Your task to perform on an android device: Open Google Maps Image 0: 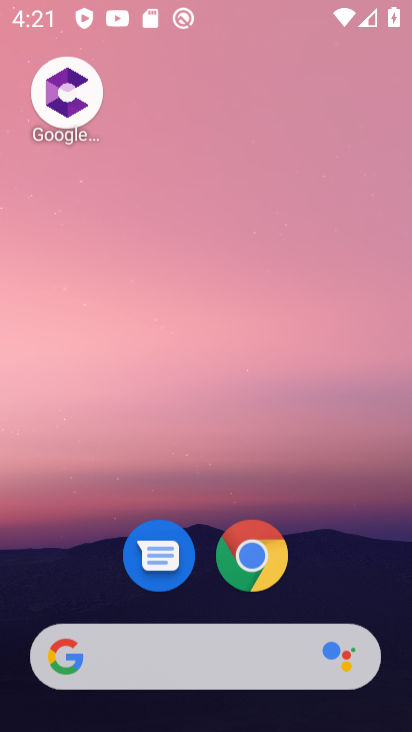
Step 0: drag from (357, 541) to (290, 97)
Your task to perform on an android device: Open Google Maps Image 1: 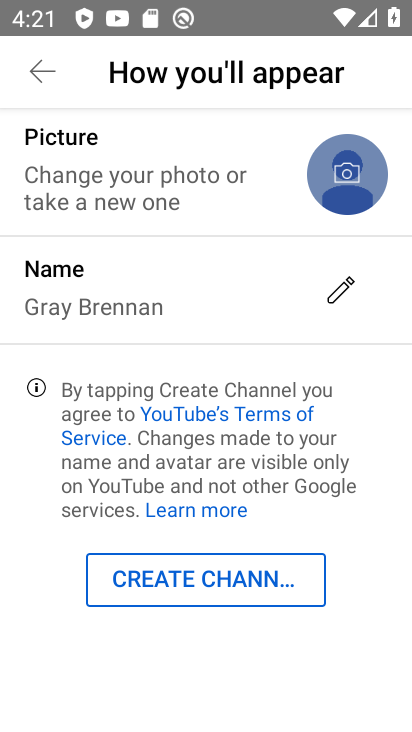
Step 1: press home button
Your task to perform on an android device: Open Google Maps Image 2: 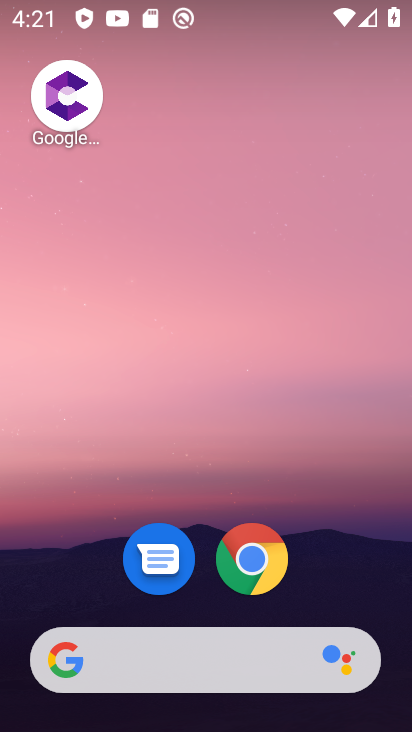
Step 2: drag from (387, 567) to (283, 31)
Your task to perform on an android device: Open Google Maps Image 3: 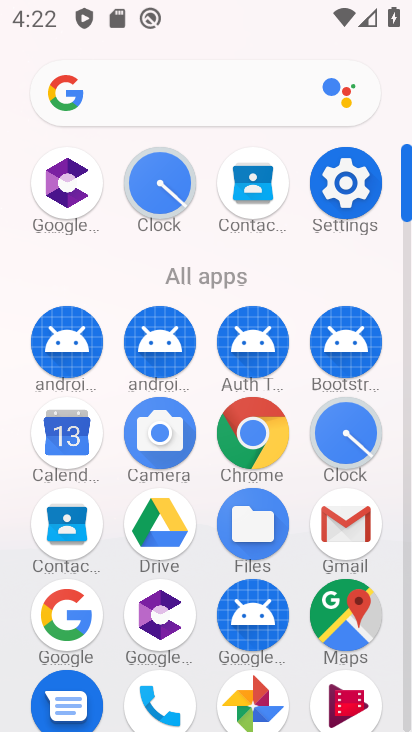
Step 3: click (328, 602)
Your task to perform on an android device: Open Google Maps Image 4: 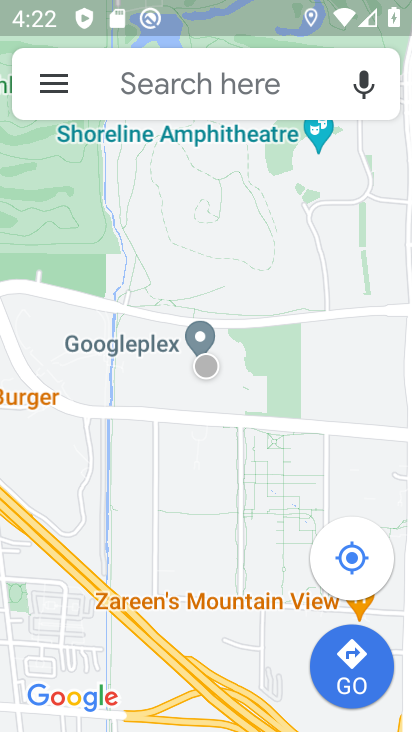
Step 4: task complete